Your task to perform on an android device: Check the news Image 0: 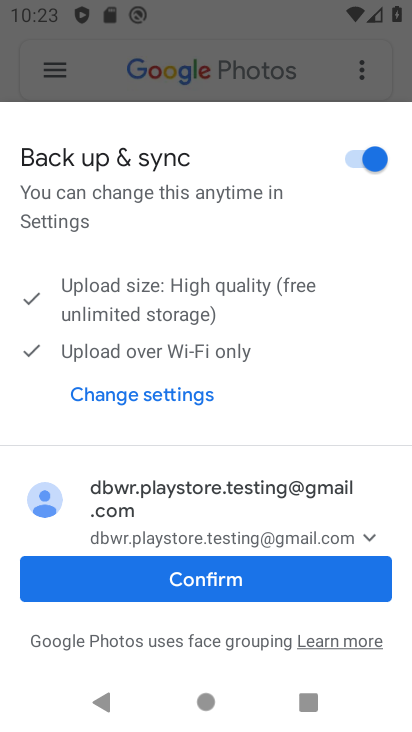
Step 0: click (411, 542)
Your task to perform on an android device: Check the news Image 1: 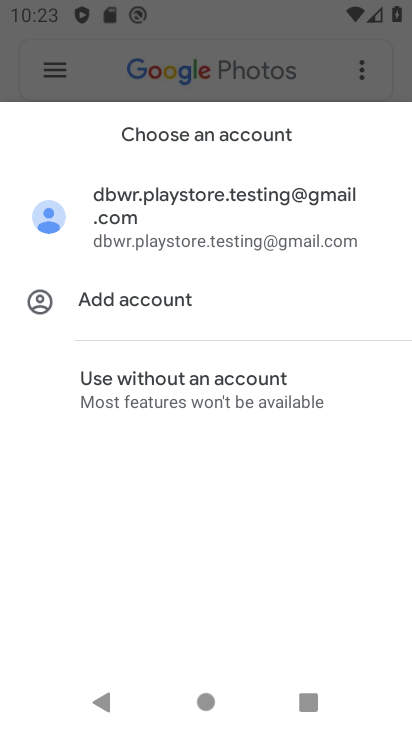
Step 1: press home button
Your task to perform on an android device: Check the news Image 2: 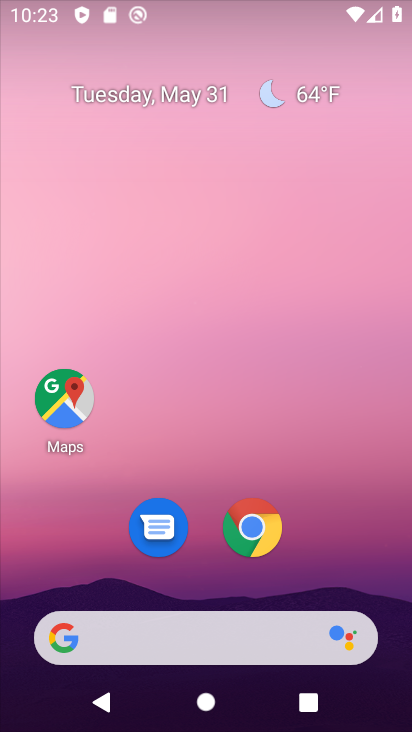
Step 2: click (176, 626)
Your task to perform on an android device: Check the news Image 3: 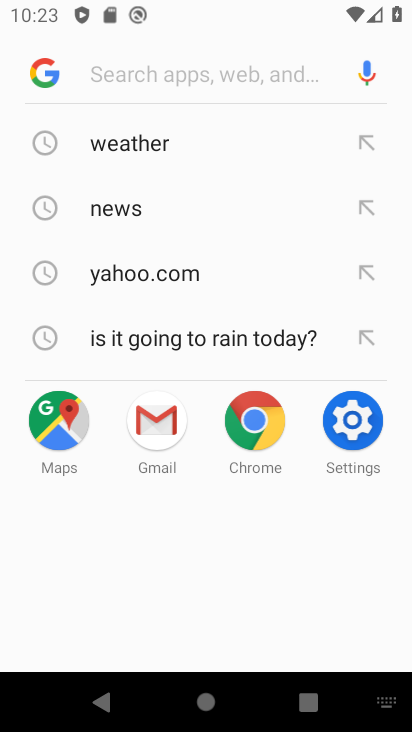
Step 3: click (163, 199)
Your task to perform on an android device: Check the news Image 4: 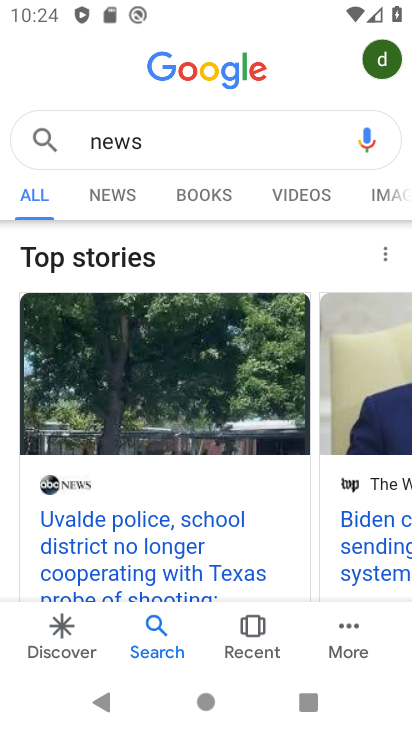
Step 4: task complete